Your task to perform on an android device: search for starred emails in the gmail app Image 0: 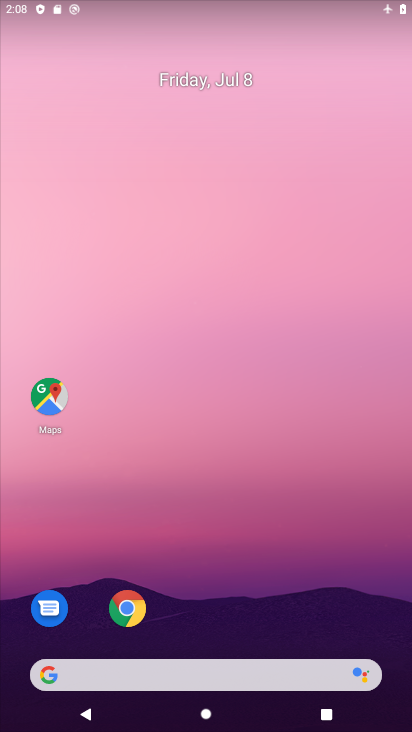
Step 0: drag from (191, 625) to (208, 126)
Your task to perform on an android device: search for starred emails in the gmail app Image 1: 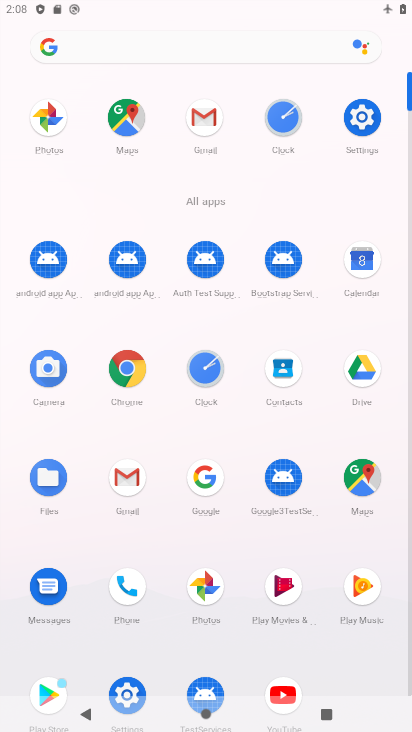
Step 1: click (209, 120)
Your task to perform on an android device: search for starred emails in the gmail app Image 2: 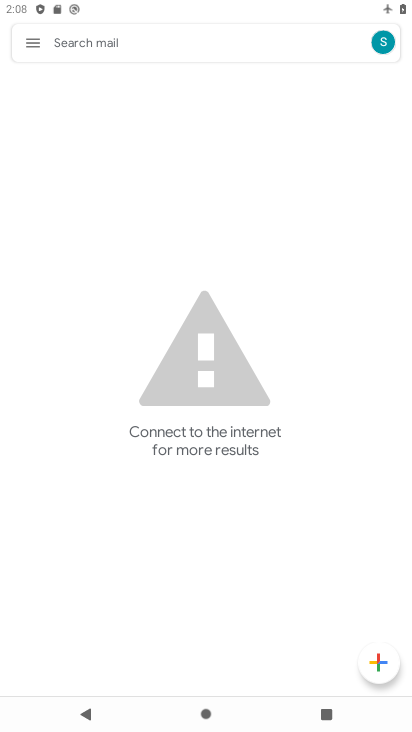
Step 2: click (38, 41)
Your task to perform on an android device: search for starred emails in the gmail app Image 3: 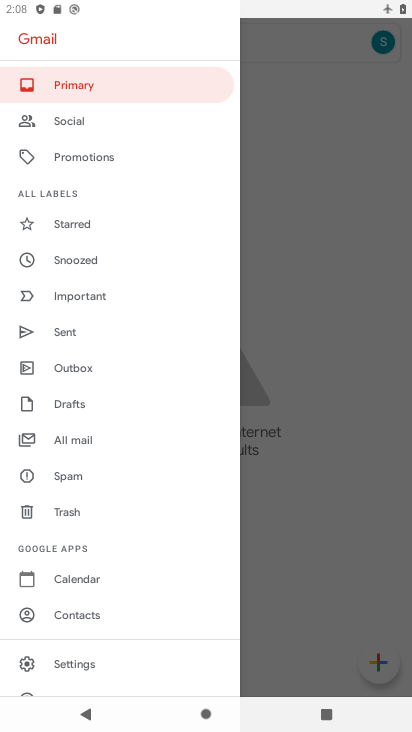
Step 3: click (74, 225)
Your task to perform on an android device: search for starred emails in the gmail app Image 4: 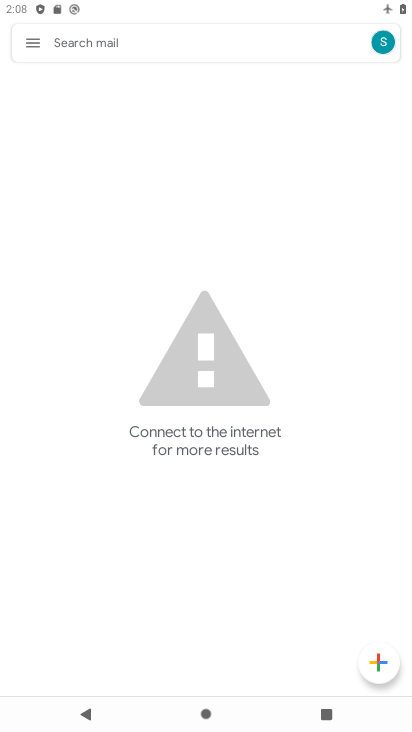
Step 4: task complete